Your task to perform on an android device: What's the news in Nepal? Image 0: 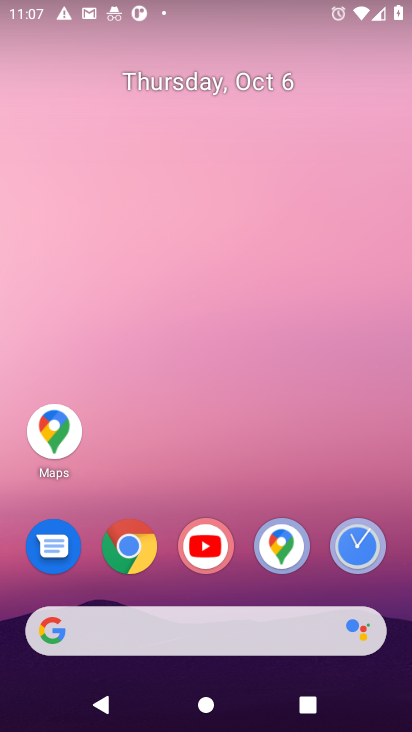
Step 0: click (133, 546)
Your task to perform on an android device: What's the news in Nepal? Image 1: 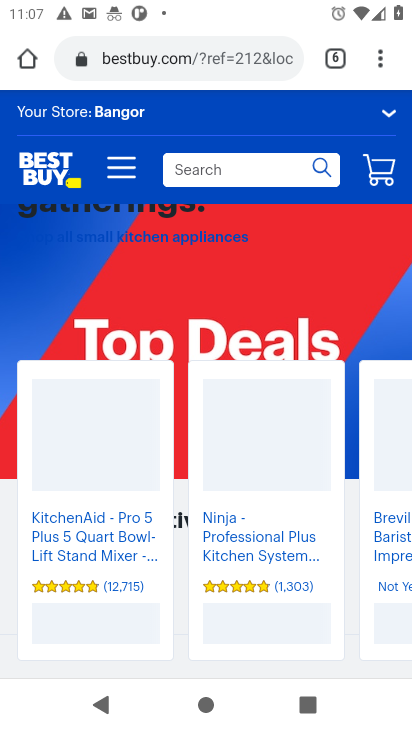
Step 1: click (185, 38)
Your task to perform on an android device: What's the news in Nepal? Image 2: 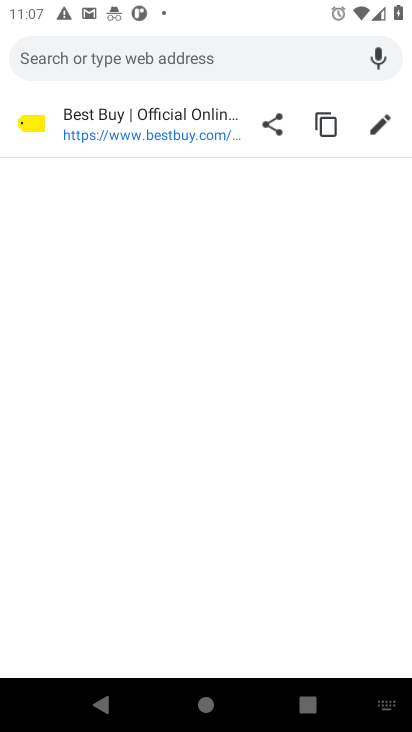
Step 2: type "news in nepal"
Your task to perform on an android device: What's the news in Nepal? Image 3: 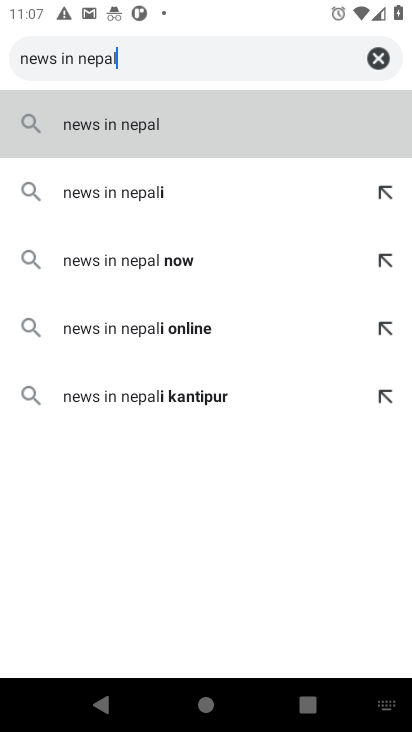
Step 3: click (120, 127)
Your task to perform on an android device: What's the news in Nepal? Image 4: 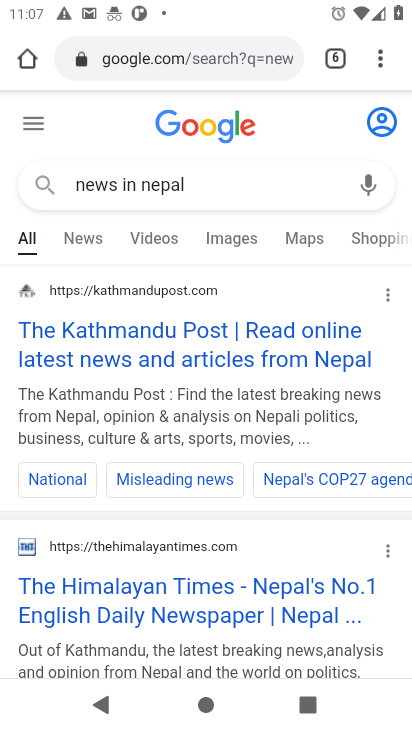
Step 4: click (118, 338)
Your task to perform on an android device: What's the news in Nepal? Image 5: 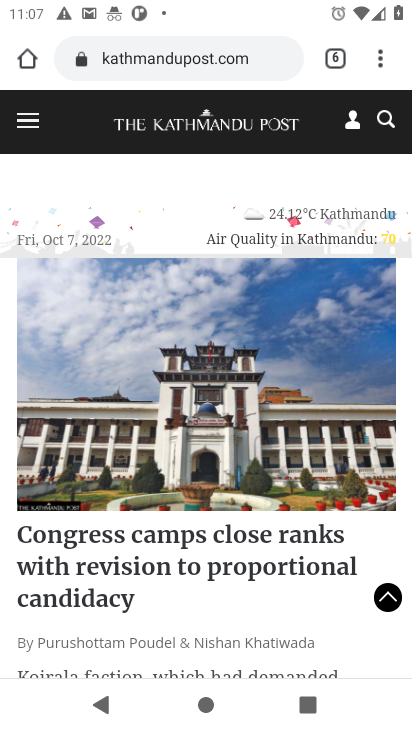
Step 5: task complete